Your task to perform on an android device: When is my next appointment? Image 0: 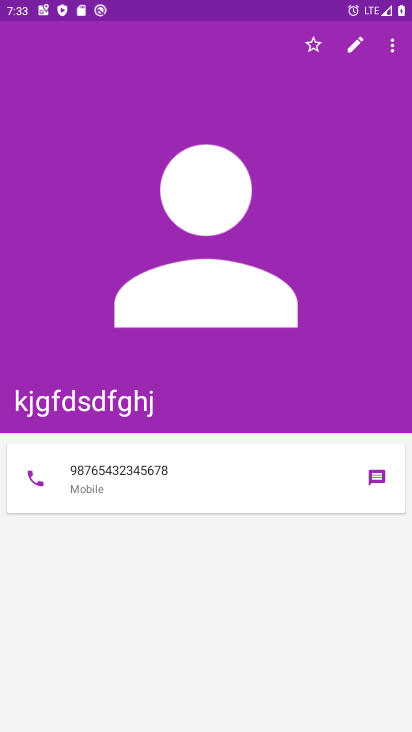
Step 0: press home button
Your task to perform on an android device: When is my next appointment? Image 1: 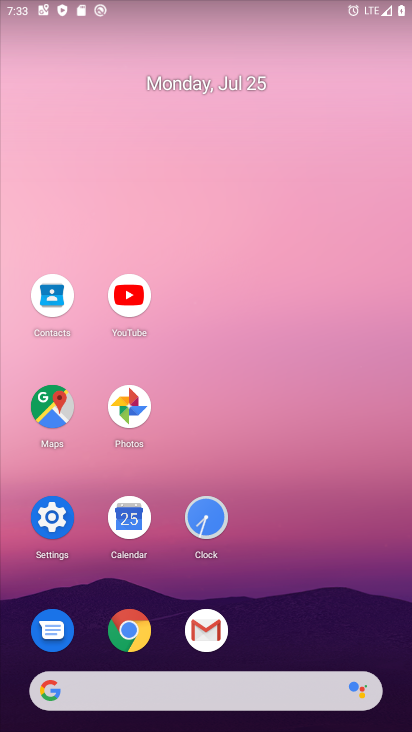
Step 1: click (122, 519)
Your task to perform on an android device: When is my next appointment? Image 2: 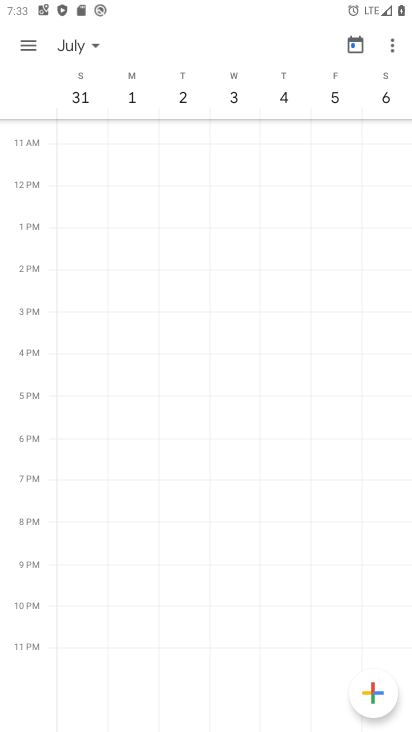
Step 2: click (85, 45)
Your task to perform on an android device: When is my next appointment? Image 3: 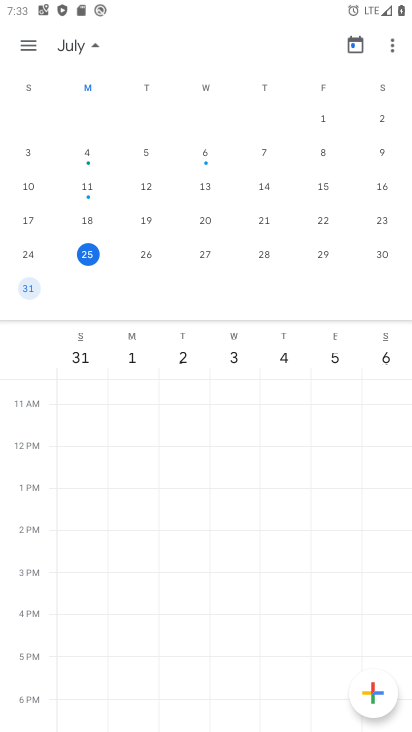
Step 3: click (83, 254)
Your task to perform on an android device: When is my next appointment? Image 4: 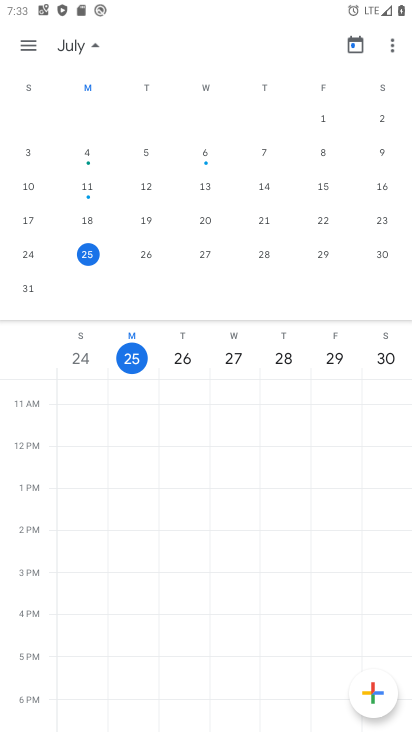
Step 4: drag from (135, 515) to (122, 236)
Your task to perform on an android device: When is my next appointment? Image 5: 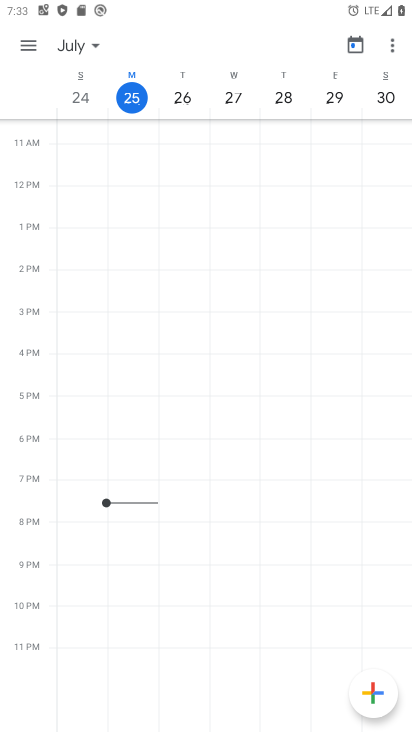
Step 5: click (122, 97)
Your task to perform on an android device: When is my next appointment? Image 6: 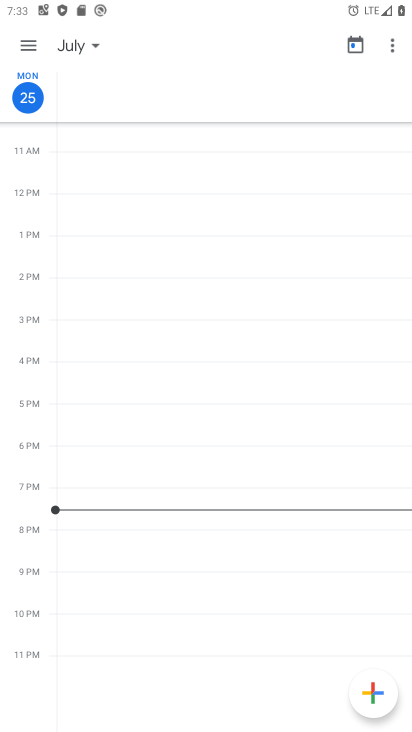
Step 6: task complete